Your task to perform on an android device: install app "Adobe Acrobat Reader: Edit PDF" Image 0: 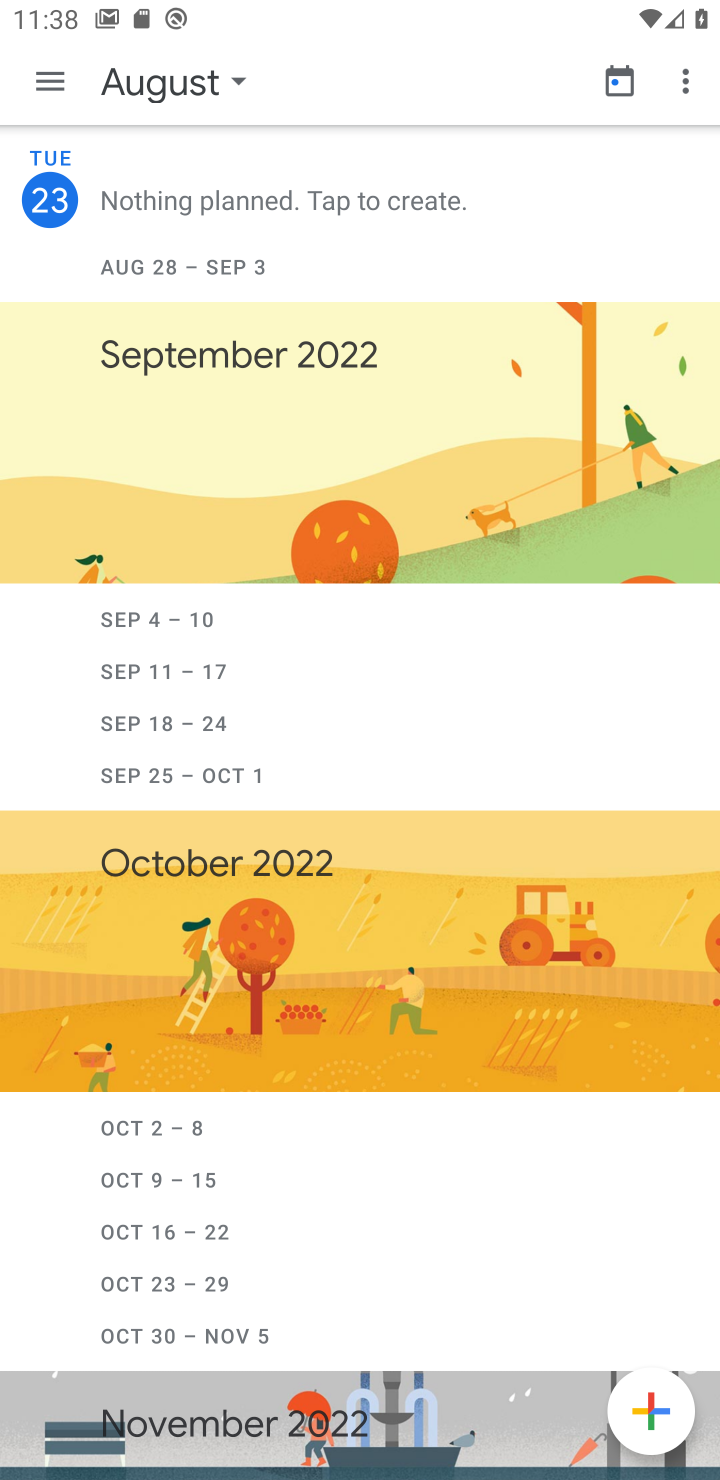
Step 0: press home button
Your task to perform on an android device: install app "Adobe Acrobat Reader: Edit PDF" Image 1: 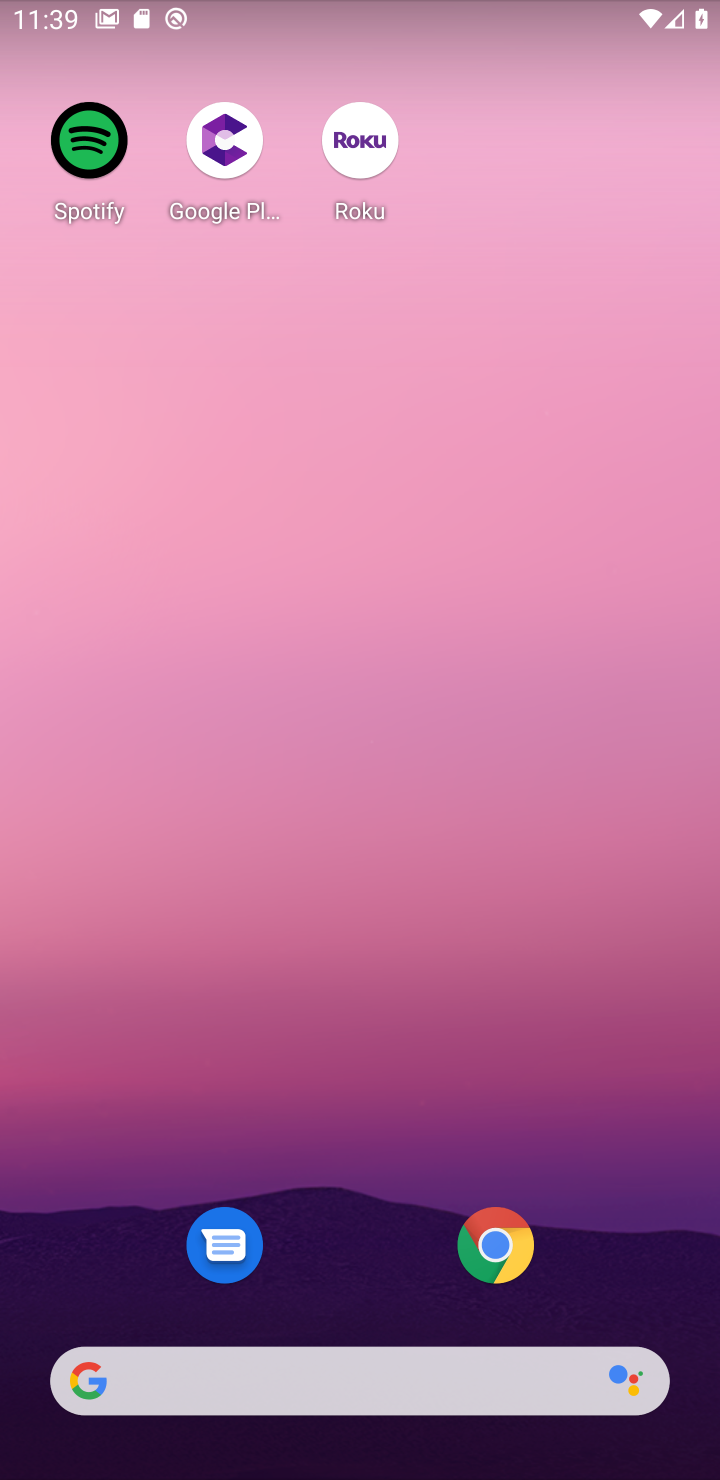
Step 1: press home button
Your task to perform on an android device: install app "Adobe Acrobat Reader: Edit PDF" Image 2: 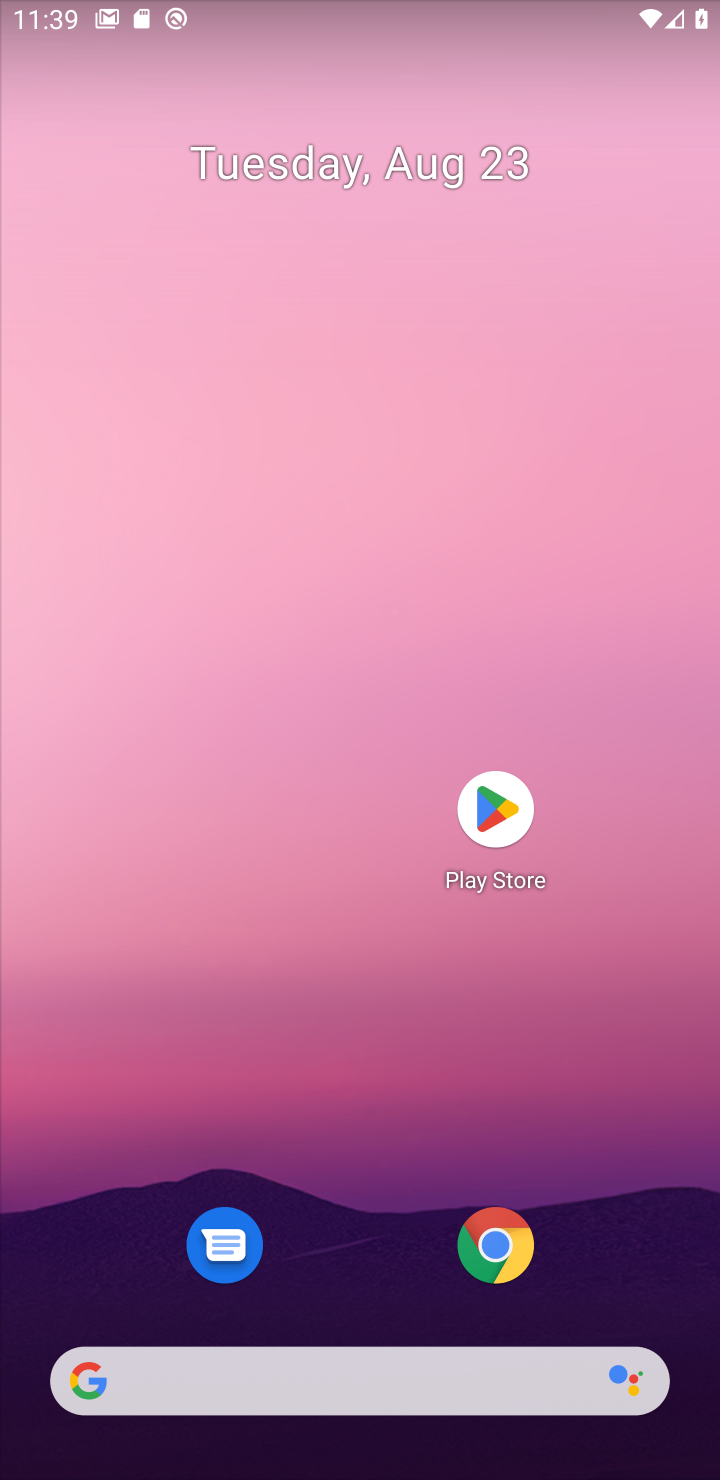
Step 2: click (497, 802)
Your task to perform on an android device: install app "Adobe Acrobat Reader: Edit PDF" Image 3: 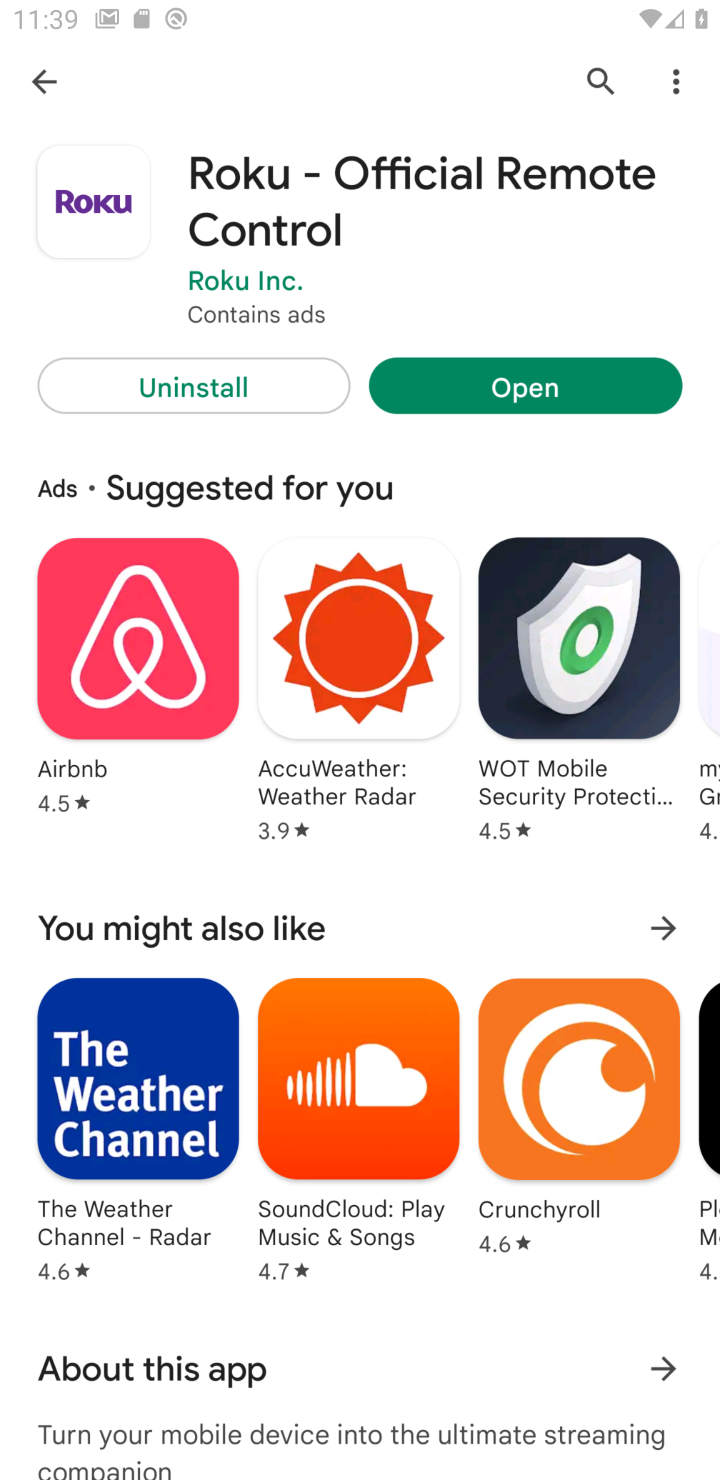
Step 3: click (497, 810)
Your task to perform on an android device: install app "Adobe Acrobat Reader: Edit PDF" Image 4: 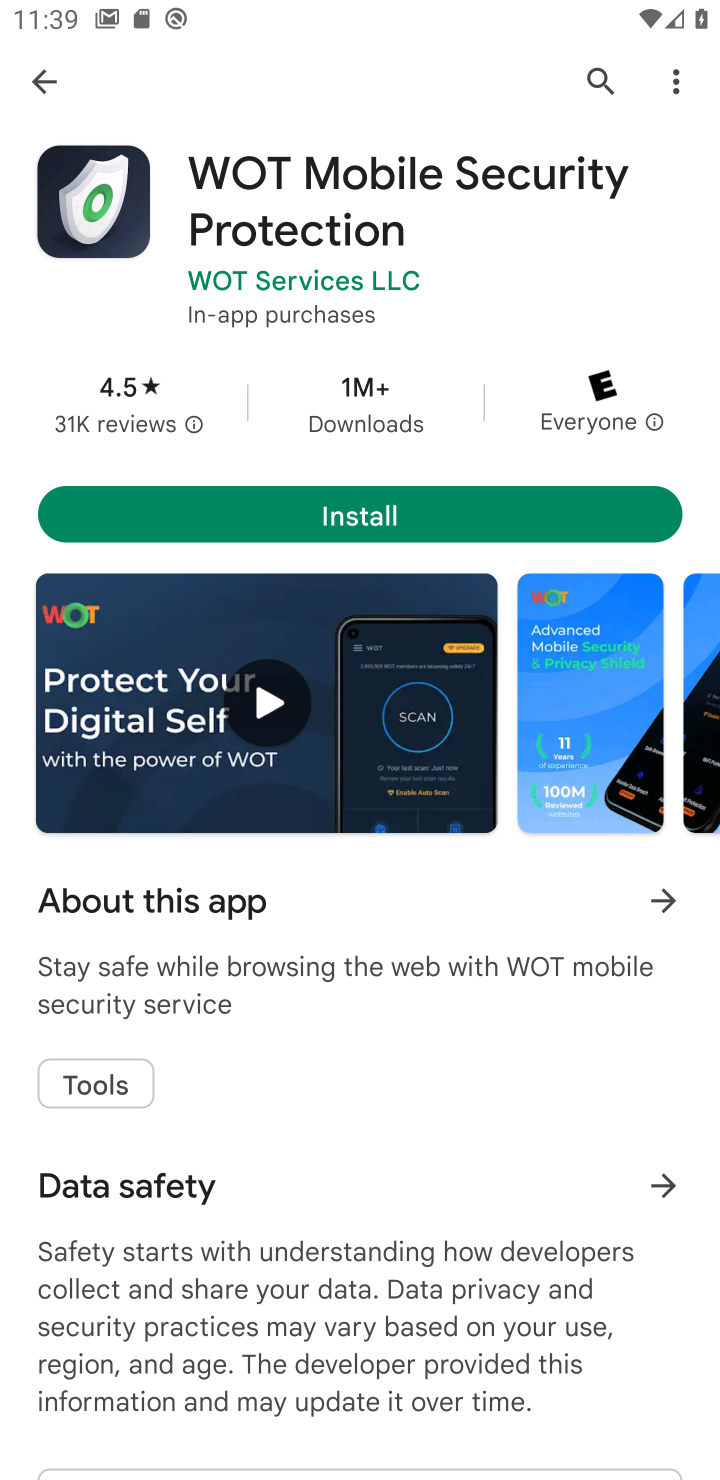
Step 4: click (28, 85)
Your task to perform on an android device: install app "Adobe Acrobat Reader: Edit PDF" Image 5: 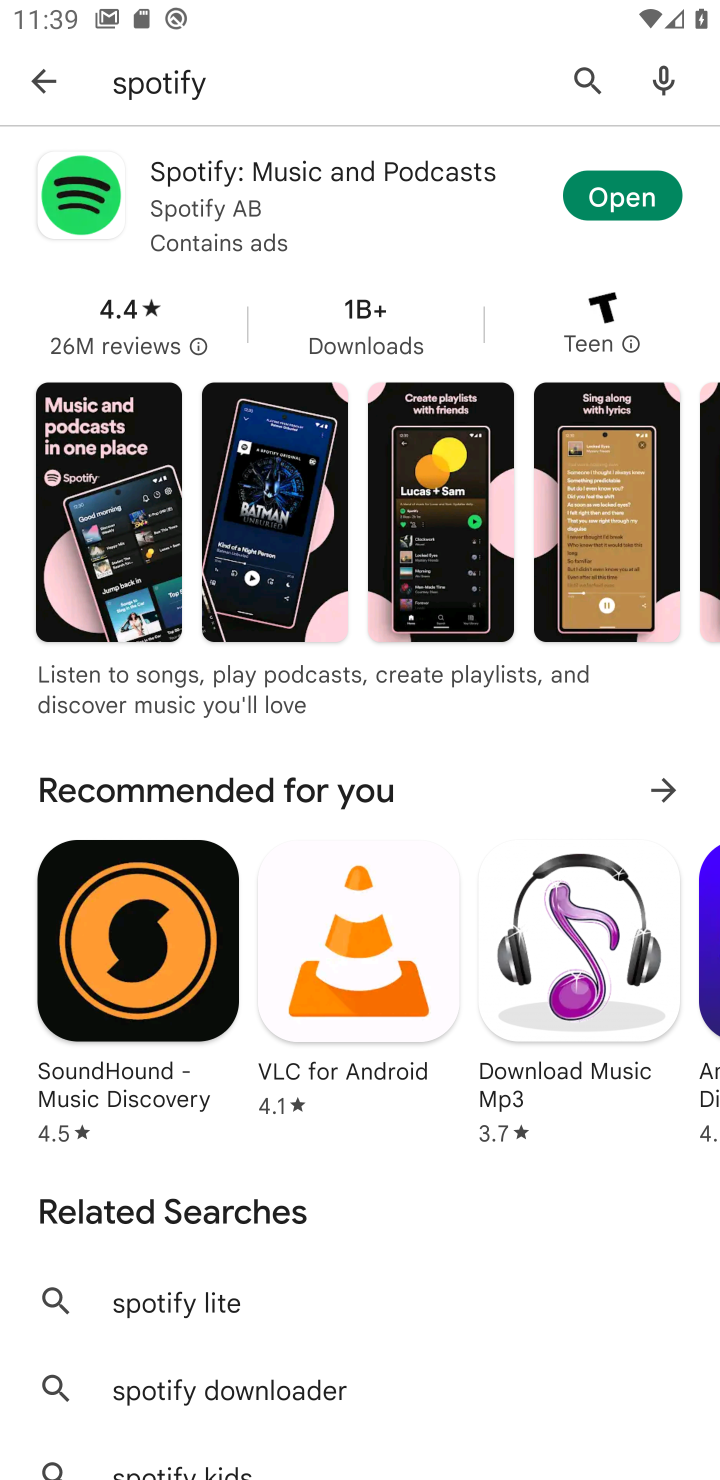
Step 5: click (581, 72)
Your task to perform on an android device: install app "Adobe Acrobat Reader: Edit PDF" Image 6: 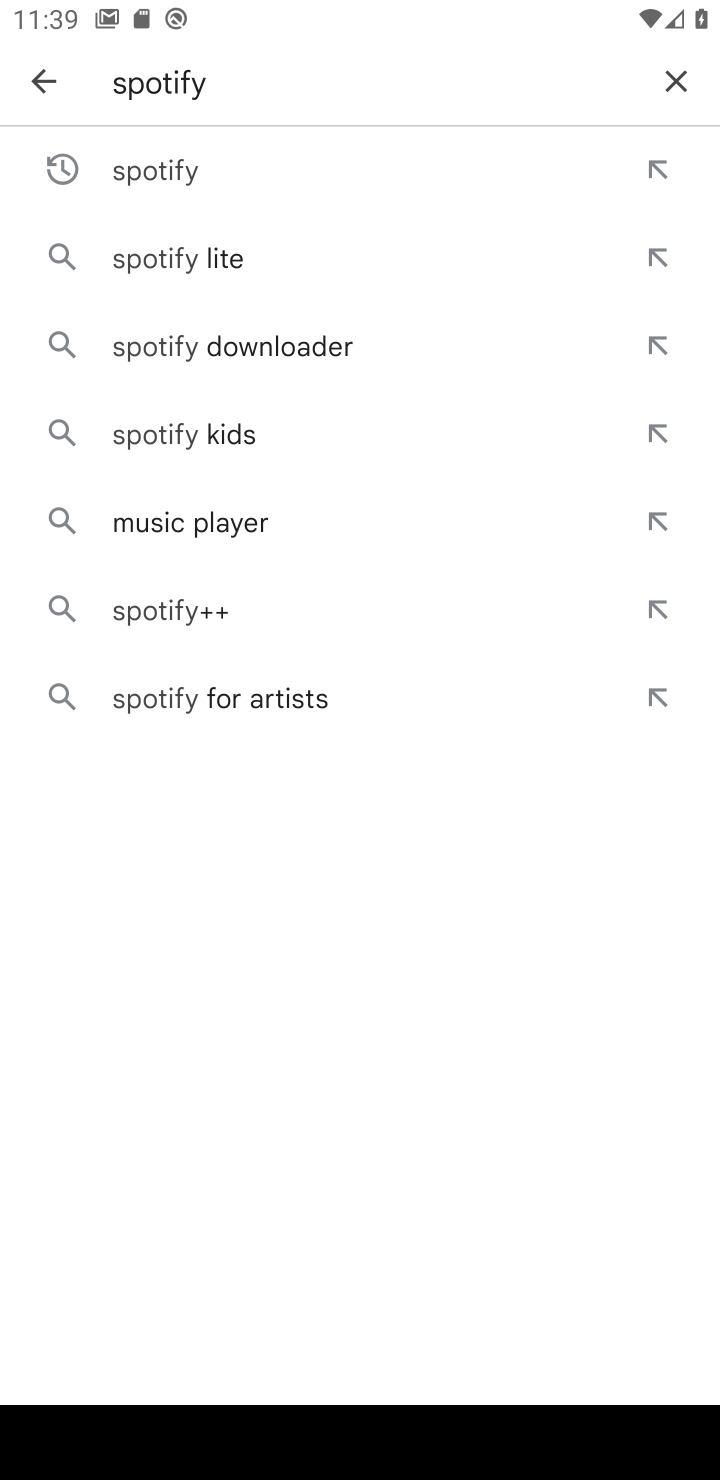
Step 6: click (672, 81)
Your task to perform on an android device: install app "Adobe Acrobat Reader: Edit PDF" Image 7: 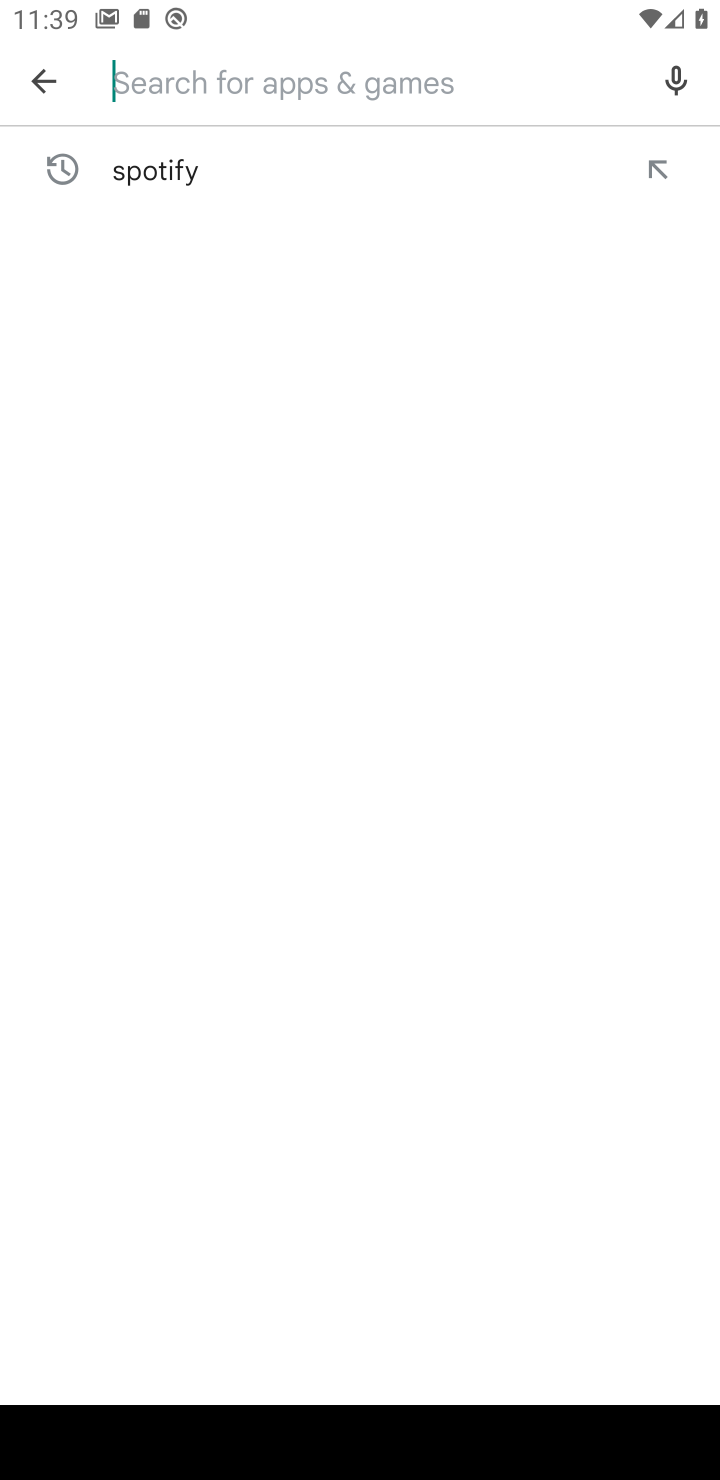
Step 7: type "Adobe Acrobat Reader: Edit PDF"
Your task to perform on an android device: install app "Adobe Acrobat Reader: Edit PDF" Image 8: 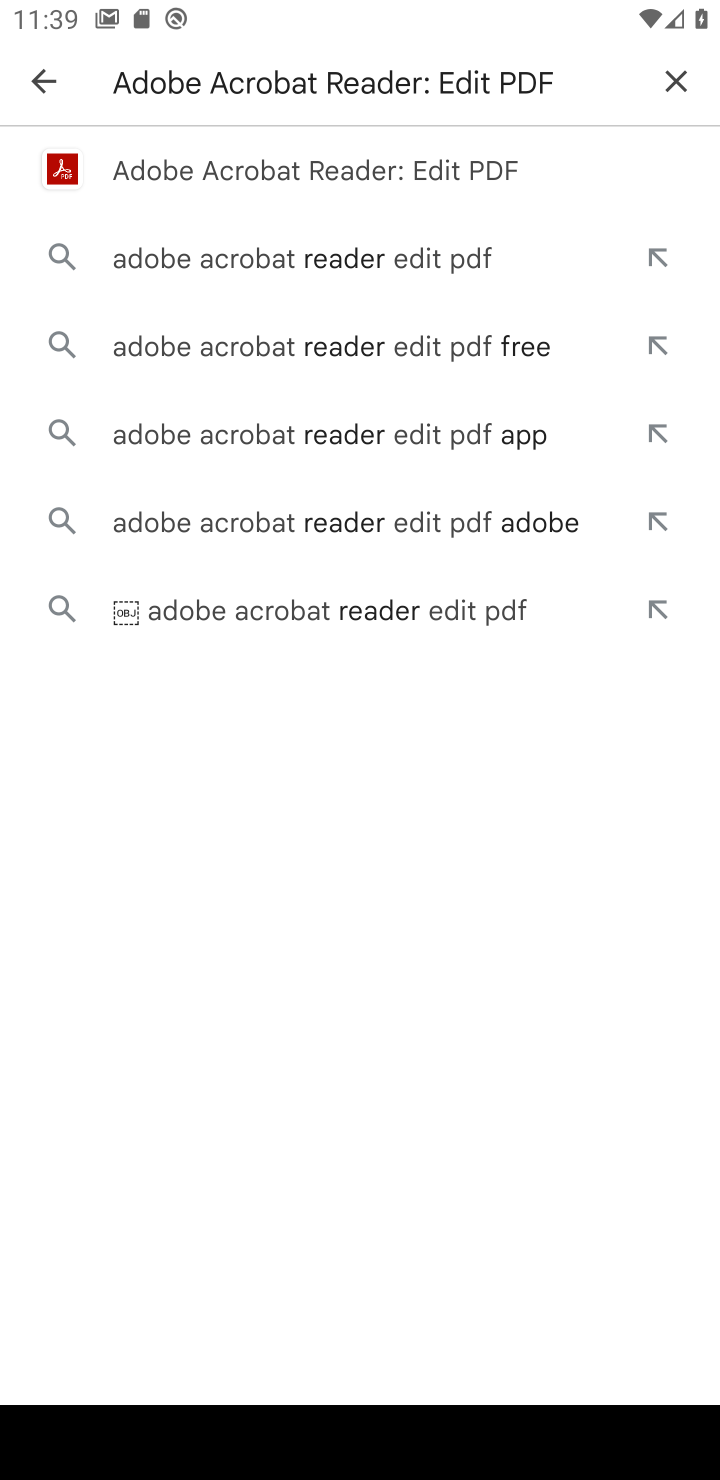
Step 8: click (330, 172)
Your task to perform on an android device: install app "Adobe Acrobat Reader: Edit PDF" Image 9: 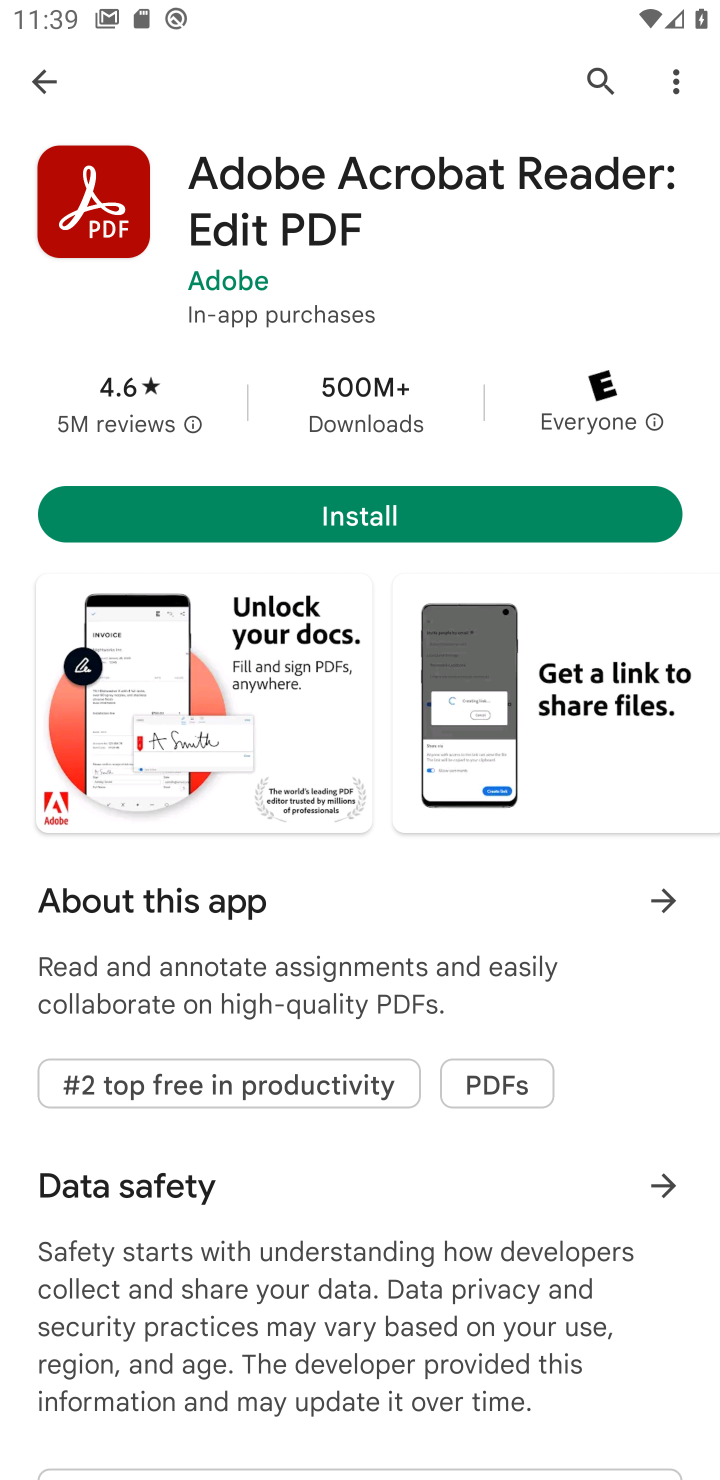
Step 9: click (378, 515)
Your task to perform on an android device: install app "Adobe Acrobat Reader: Edit PDF" Image 10: 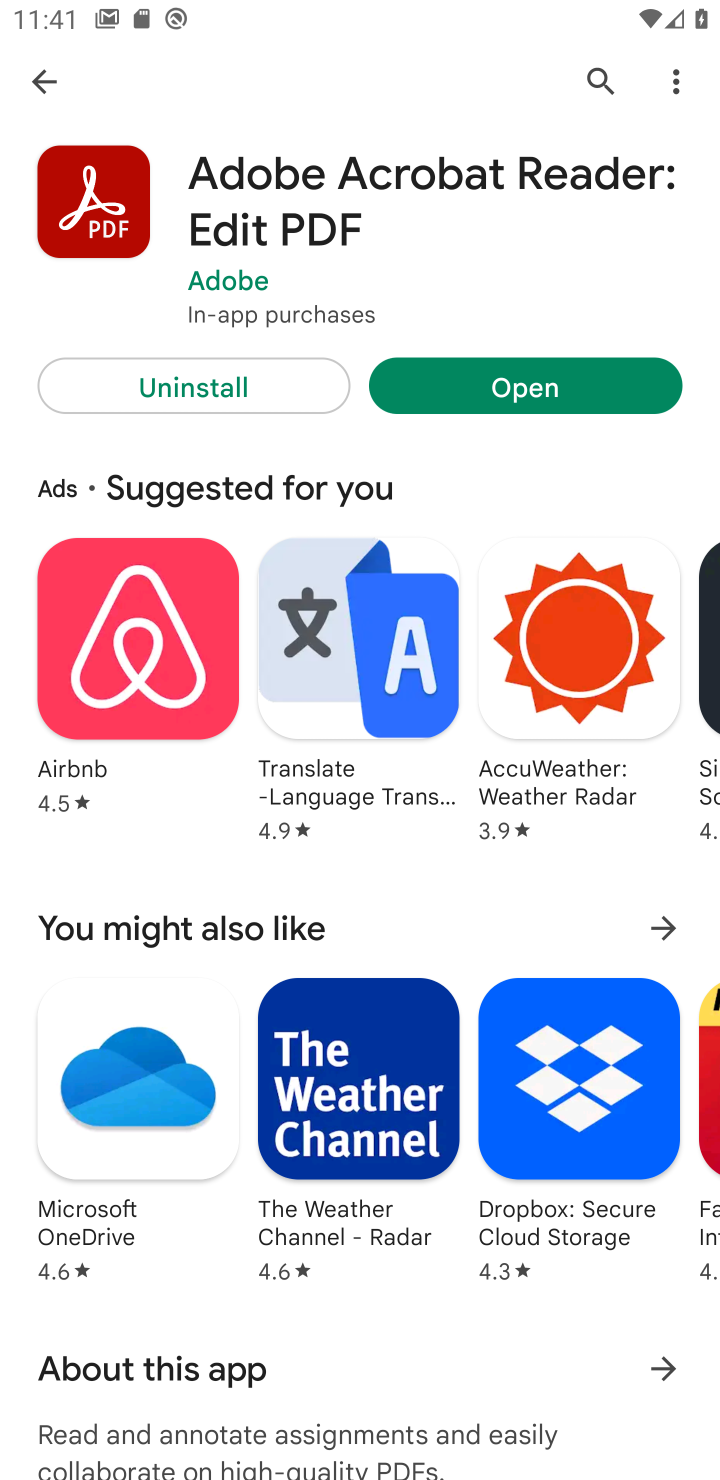
Step 10: task complete